Your task to perform on an android device: Toggle the flashlight Image 0: 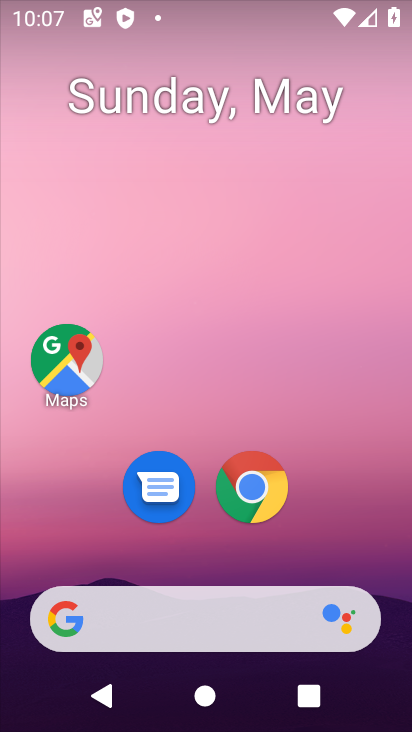
Step 0: drag from (254, 6) to (241, 348)
Your task to perform on an android device: Toggle the flashlight Image 1: 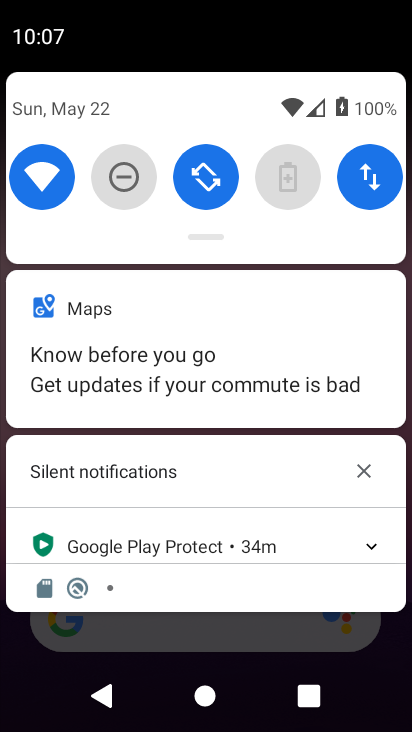
Step 1: drag from (240, 116) to (247, 380)
Your task to perform on an android device: Toggle the flashlight Image 2: 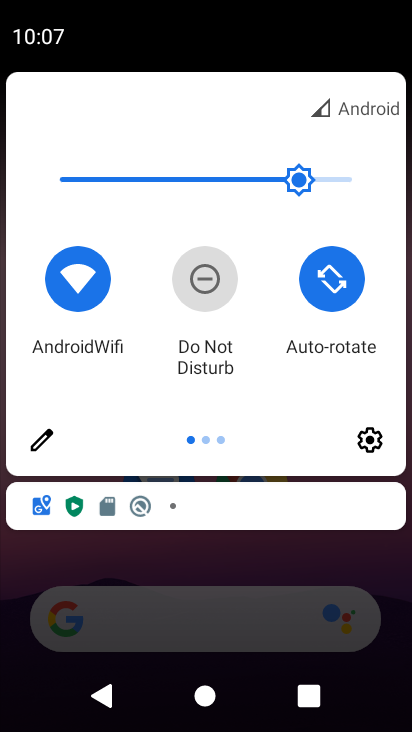
Step 2: click (44, 448)
Your task to perform on an android device: Toggle the flashlight Image 3: 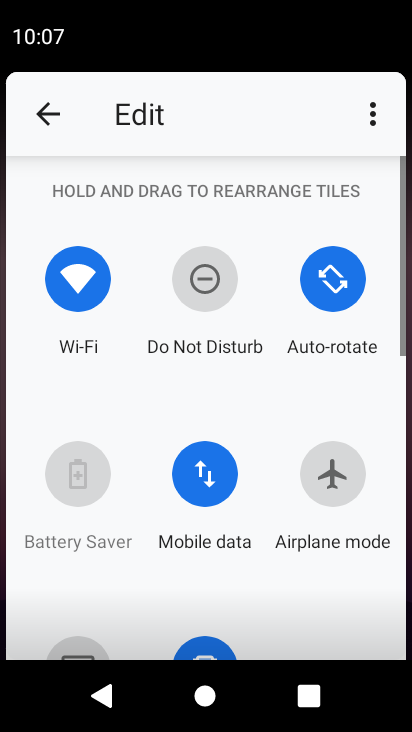
Step 3: task complete